Your task to perform on an android device: Play the new Ariana Grande video on YouTube Image 0: 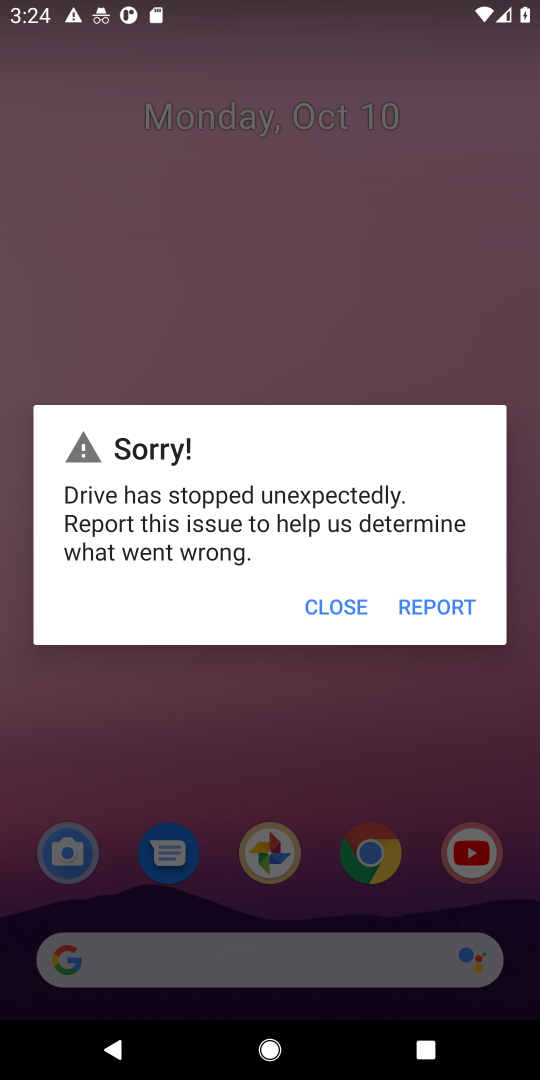
Step 0: click (373, 864)
Your task to perform on an android device: Play the new Ariana Grande video on YouTube Image 1: 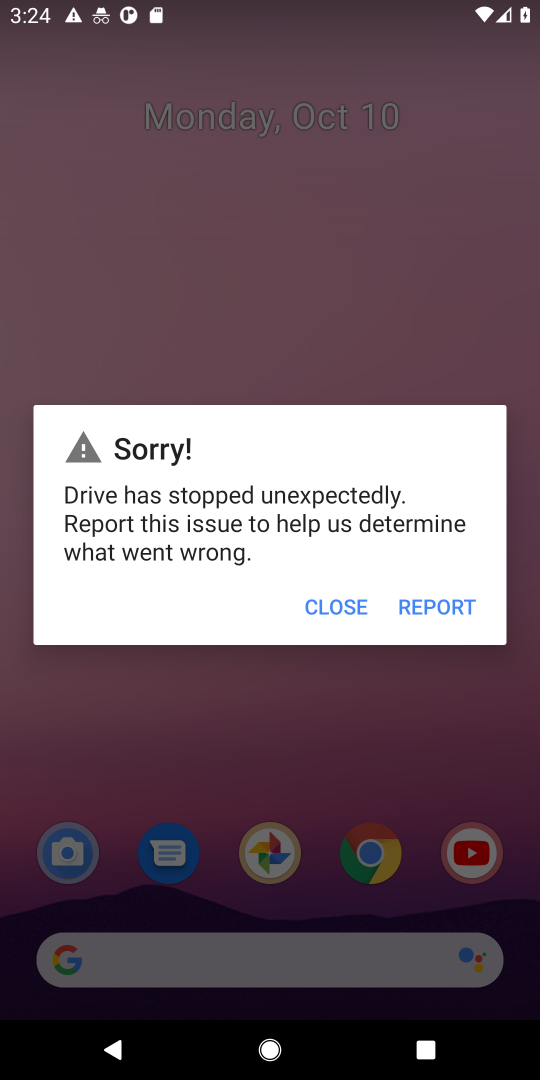
Step 1: click (344, 613)
Your task to perform on an android device: Play the new Ariana Grande video on YouTube Image 2: 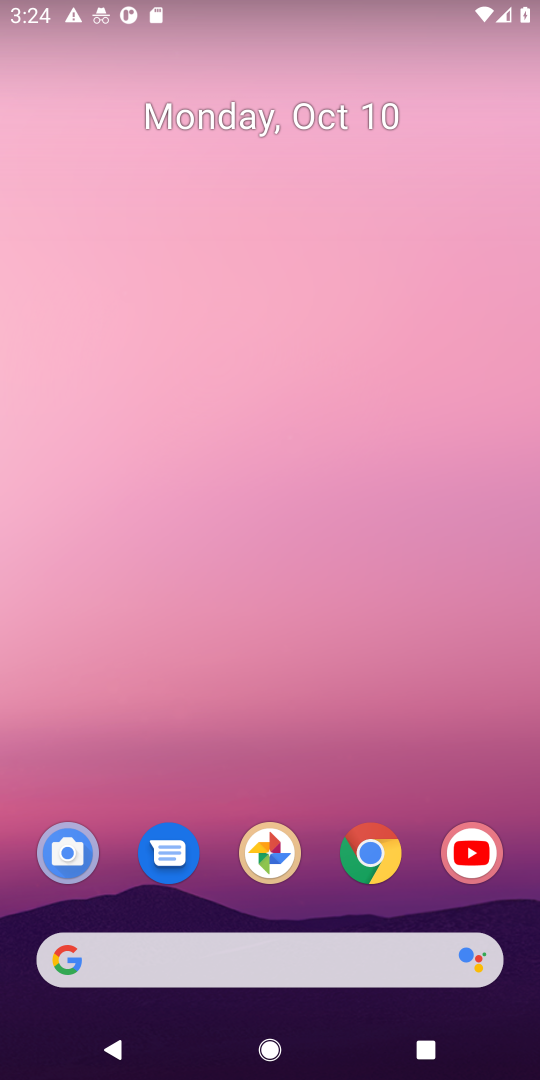
Step 2: click (466, 861)
Your task to perform on an android device: Play the new Ariana Grande video on YouTube Image 3: 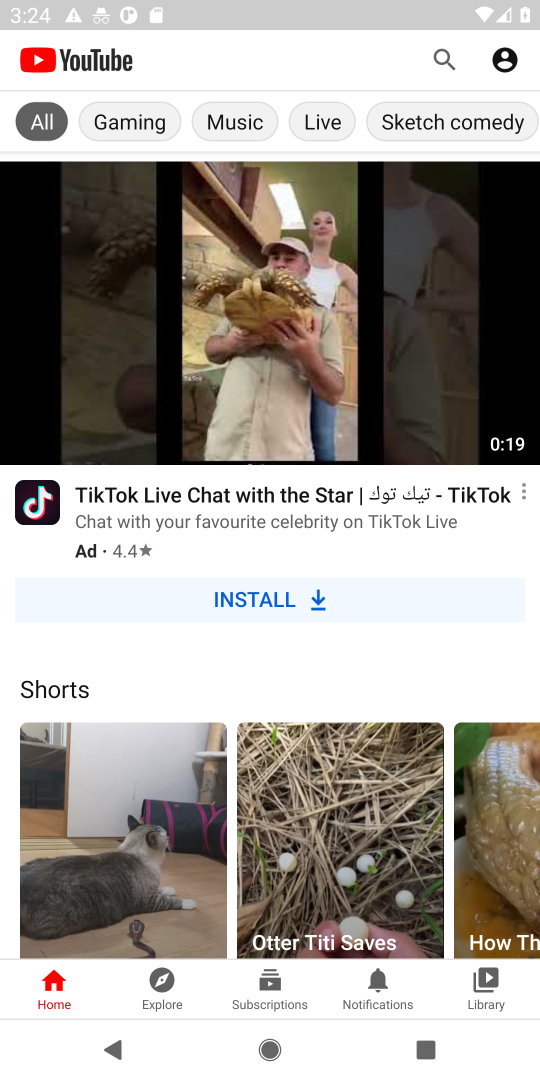
Step 3: click (451, 56)
Your task to perform on an android device: Play the new Ariana Grande video on YouTube Image 4: 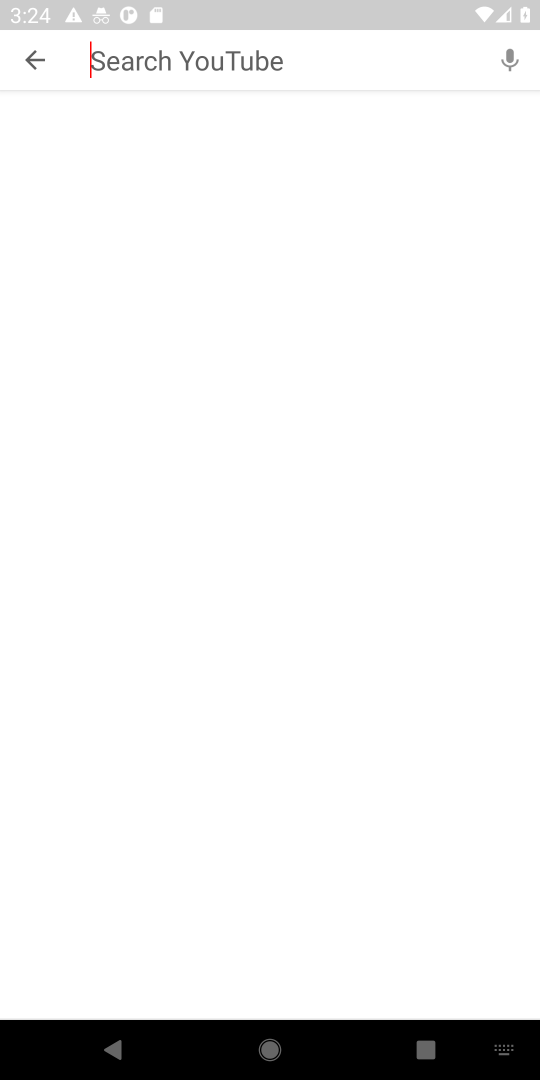
Step 4: type "new Ariana Grande video"
Your task to perform on an android device: Play the new Ariana Grande video on YouTube Image 5: 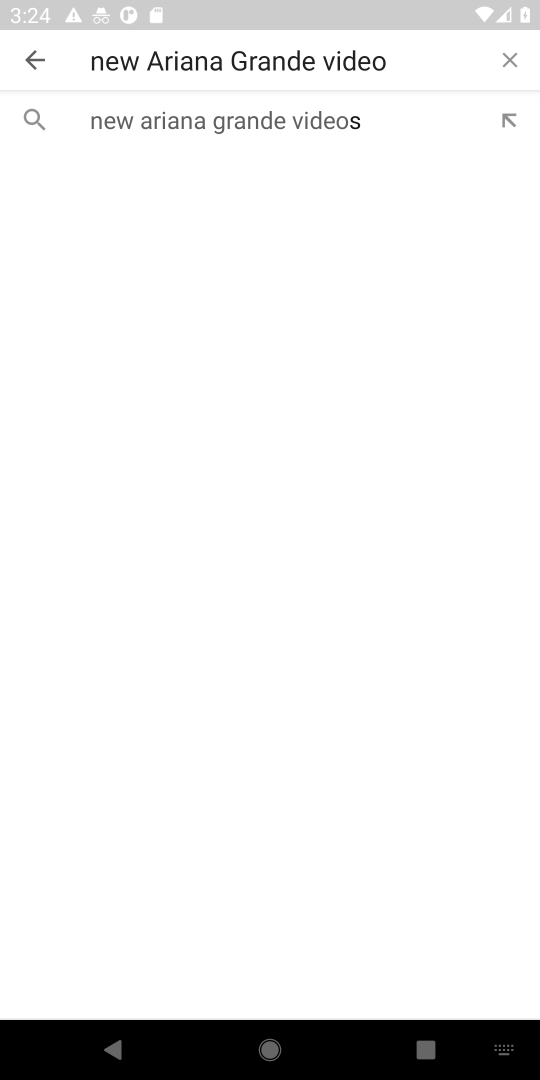
Step 5: type ""
Your task to perform on an android device: Play the new Ariana Grande video on YouTube Image 6: 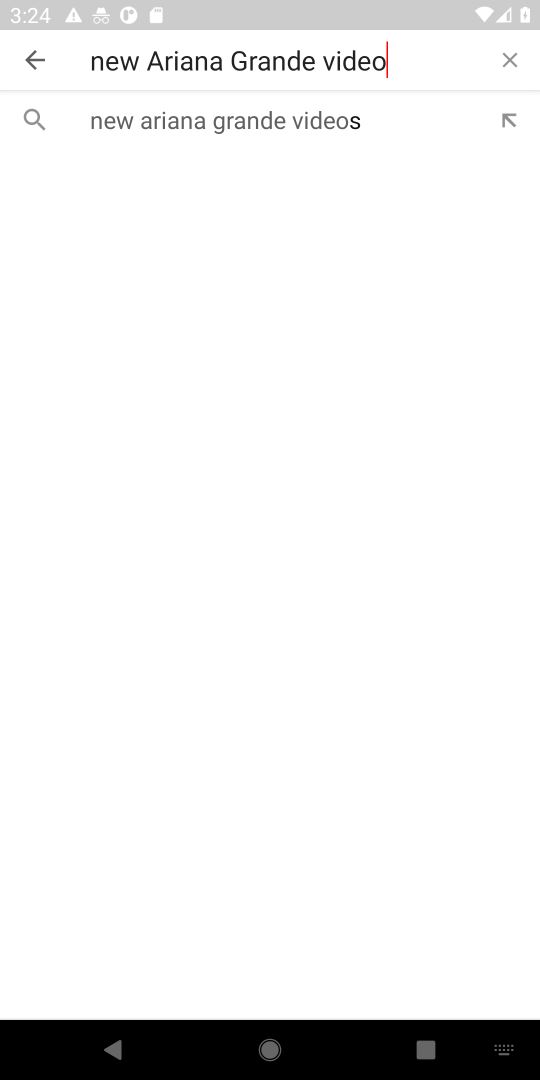
Step 6: click (257, 119)
Your task to perform on an android device: Play the new Ariana Grande video on YouTube Image 7: 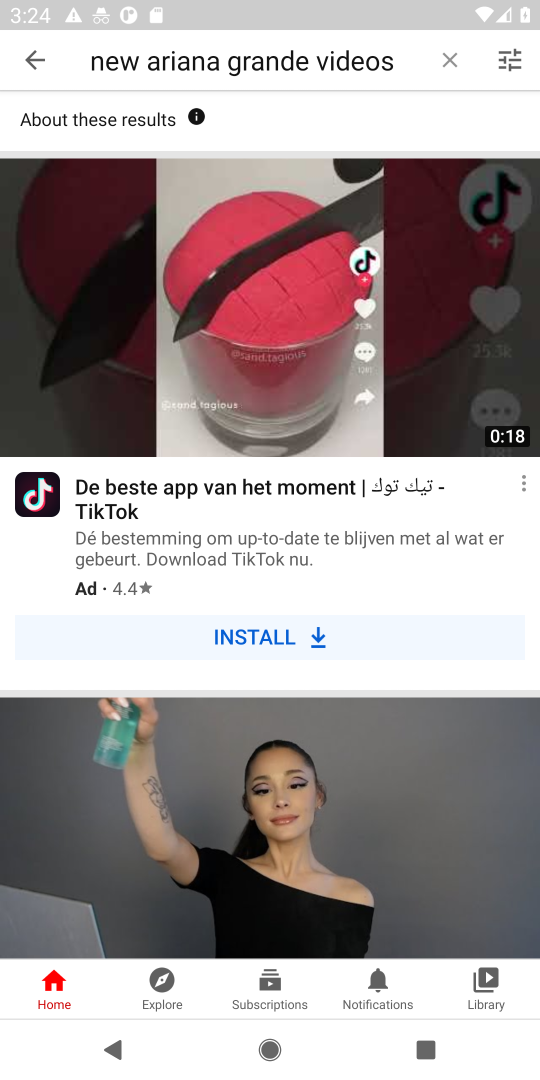
Step 7: drag from (338, 528) to (337, 242)
Your task to perform on an android device: Play the new Ariana Grande video on YouTube Image 8: 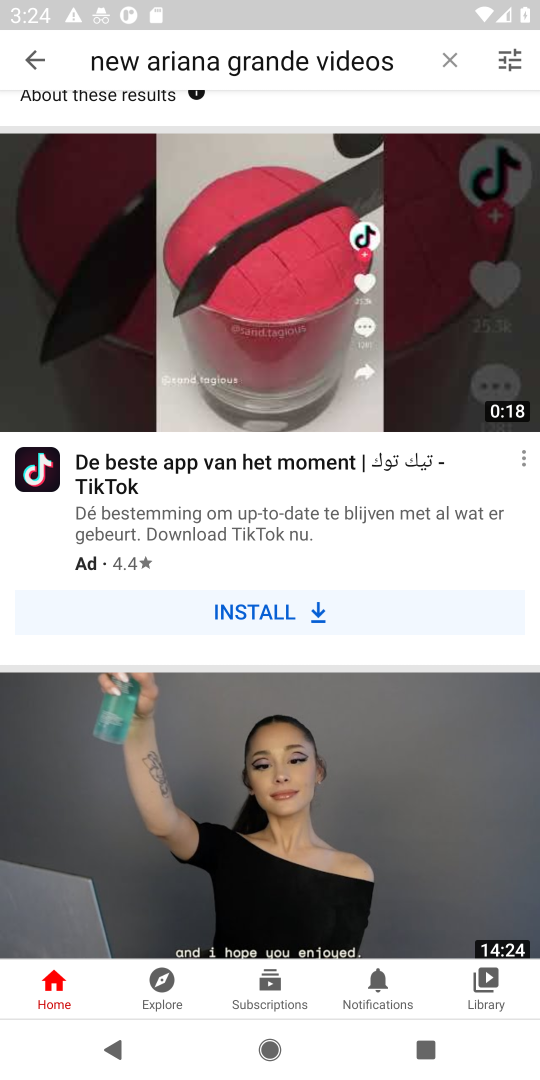
Step 8: drag from (401, 559) to (417, 187)
Your task to perform on an android device: Play the new Ariana Grande video on YouTube Image 9: 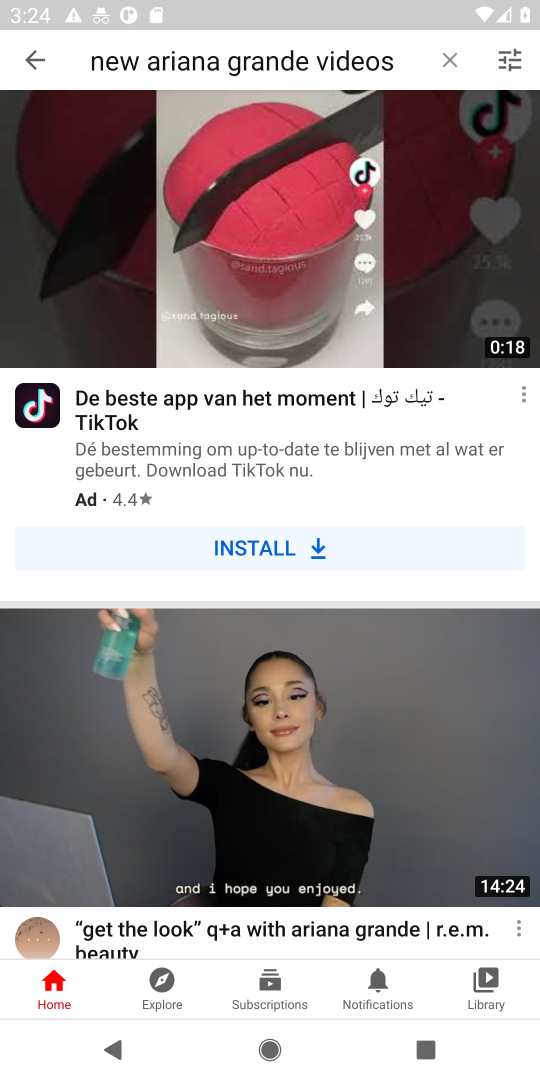
Step 9: drag from (422, 391) to (412, 109)
Your task to perform on an android device: Play the new Ariana Grande video on YouTube Image 10: 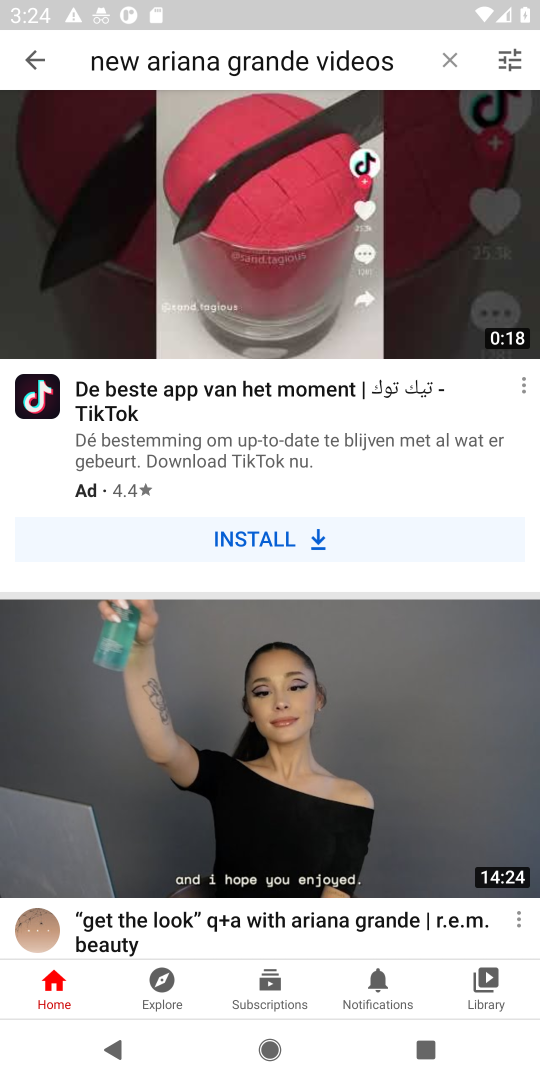
Step 10: click (324, 61)
Your task to perform on an android device: Play the new Ariana Grande video on YouTube Image 11: 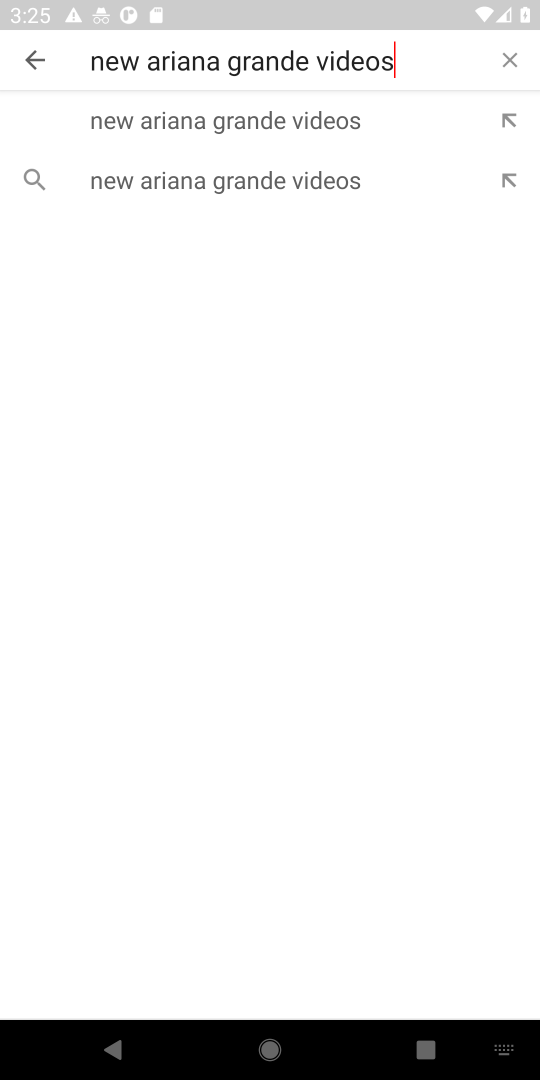
Step 11: click (427, 65)
Your task to perform on an android device: Play the new Ariana Grande video on YouTube Image 12: 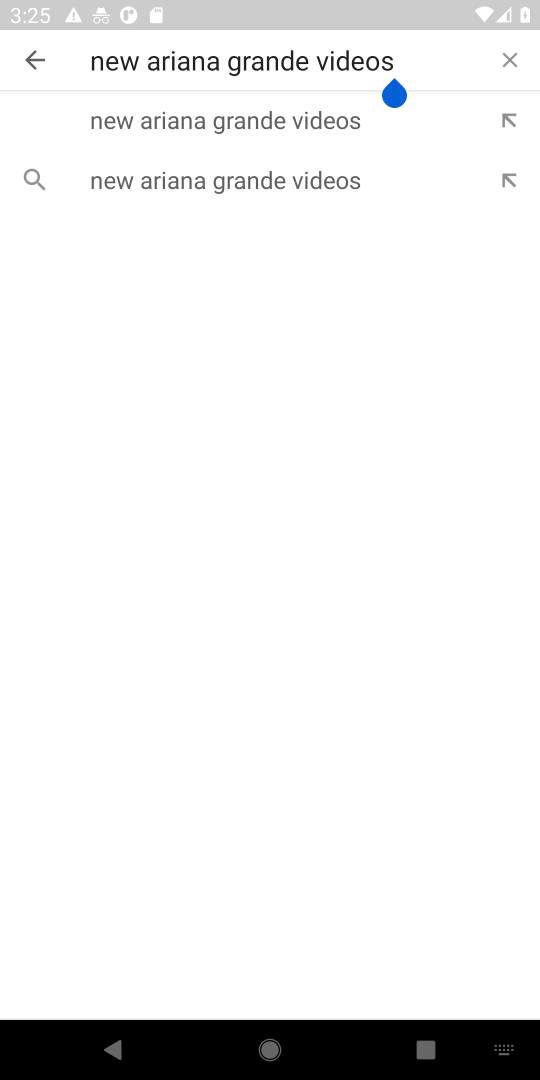
Step 12: click (314, 66)
Your task to perform on an android device: Play the new Ariana Grande video on YouTube Image 13: 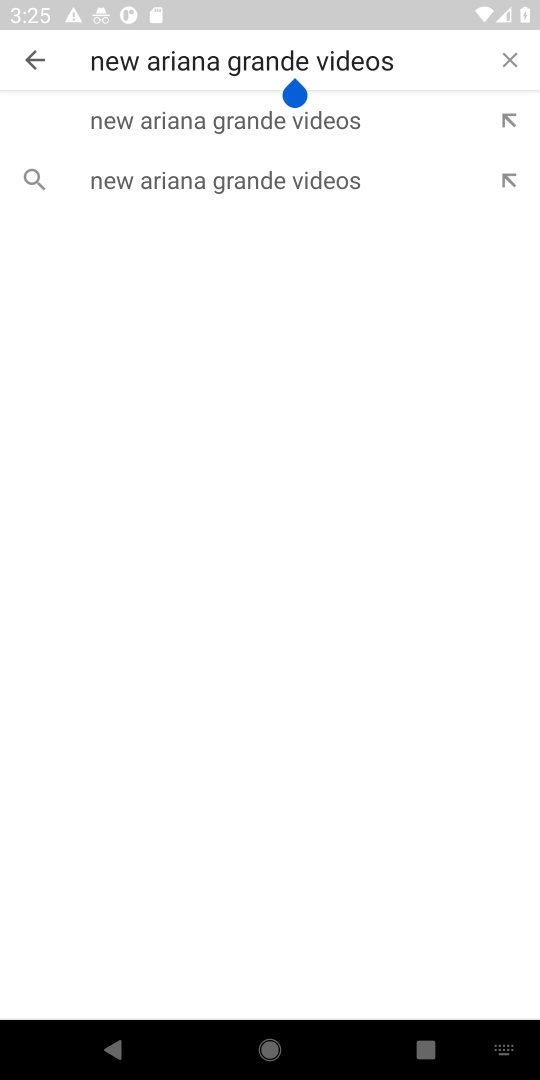
Step 13: press back button
Your task to perform on an android device: Play the new Ariana Grande video on YouTube Image 14: 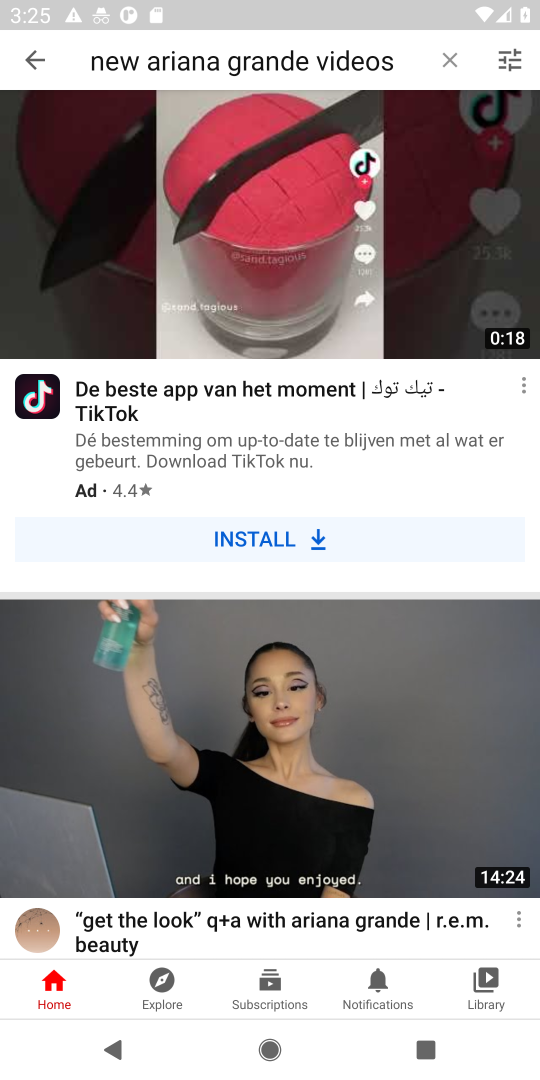
Step 14: press back button
Your task to perform on an android device: Play the new Ariana Grande video on YouTube Image 15: 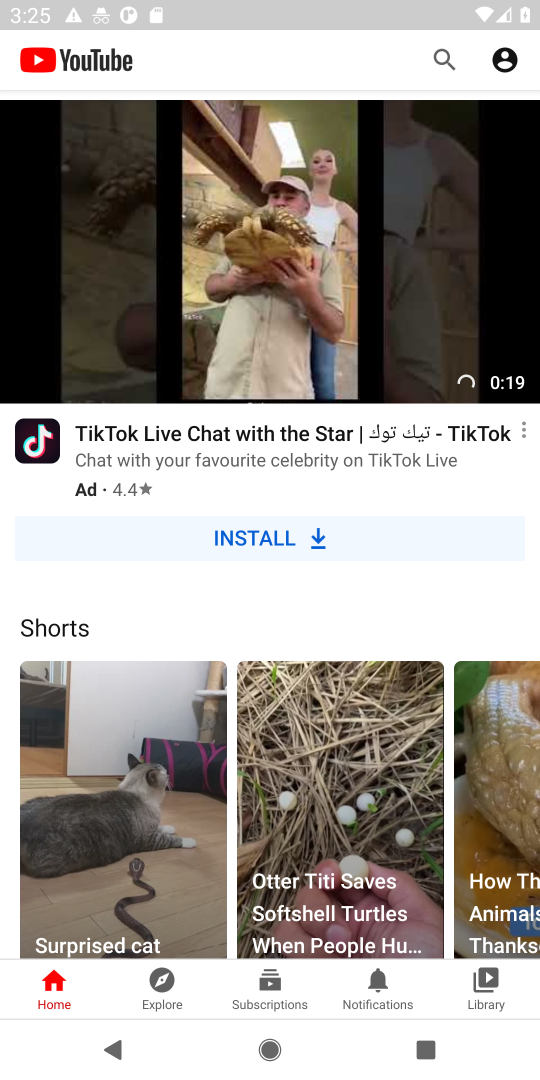
Step 15: press back button
Your task to perform on an android device: Play the new Ariana Grande video on YouTube Image 16: 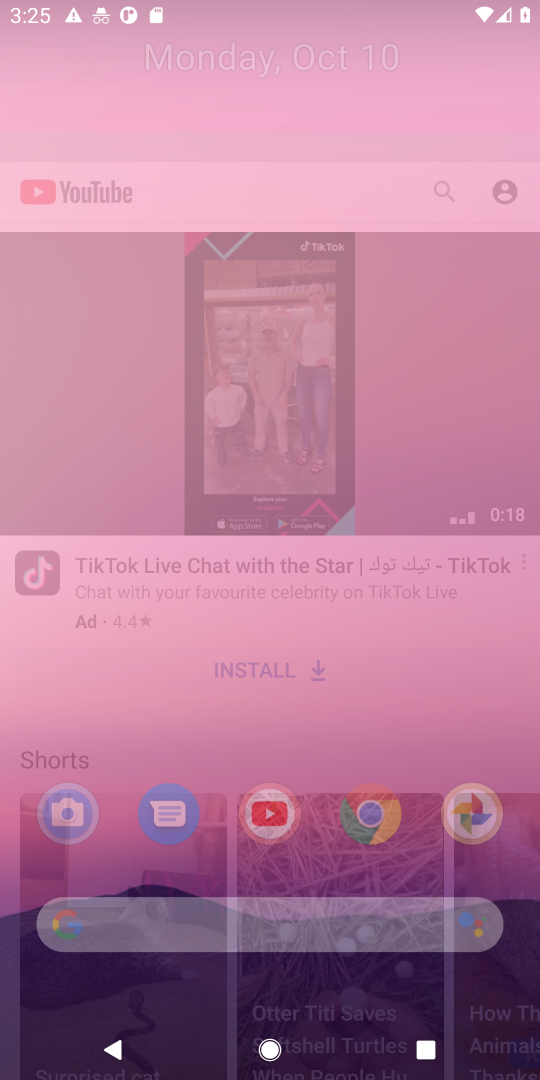
Step 16: press home button
Your task to perform on an android device: Play the new Ariana Grande video on YouTube Image 17: 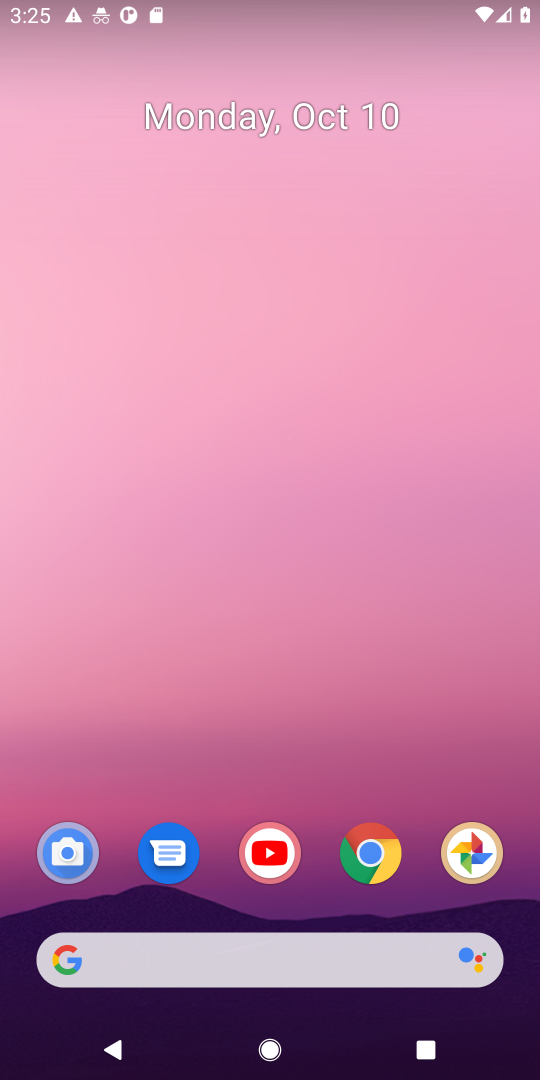
Step 17: click (374, 862)
Your task to perform on an android device: Play the new Ariana Grande video on YouTube Image 18: 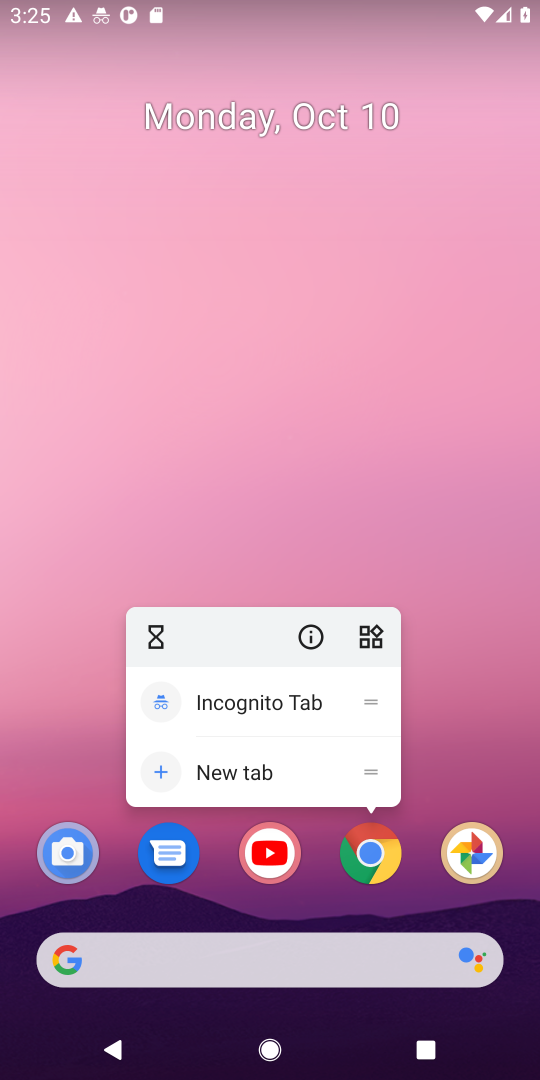
Step 18: click (380, 878)
Your task to perform on an android device: Play the new Ariana Grande video on YouTube Image 19: 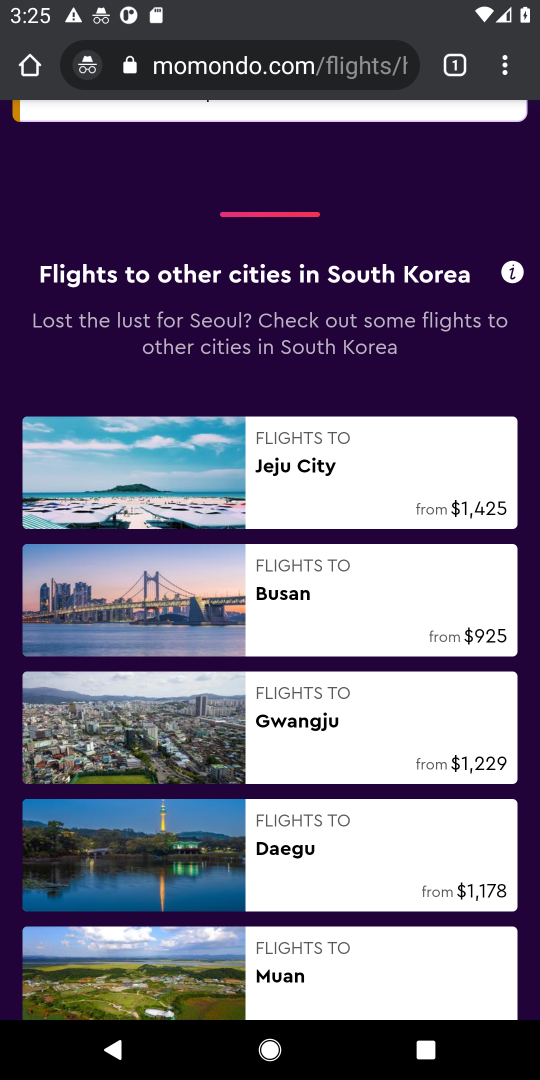
Step 19: click (245, 77)
Your task to perform on an android device: Play the new Ariana Grande video on YouTube Image 20: 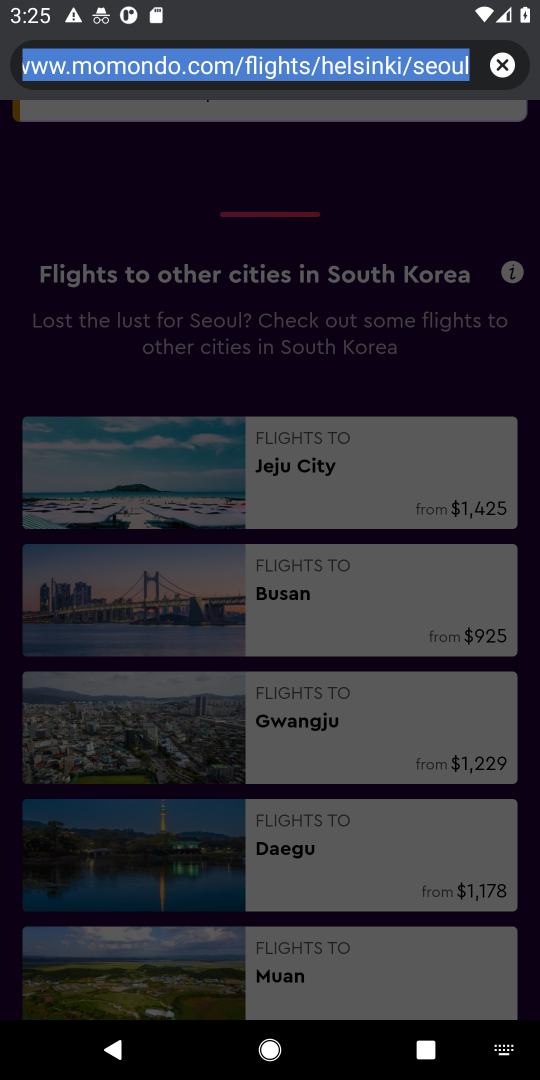
Step 20: type "new Ariana Grande video"
Your task to perform on an android device: Play the new Ariana Grande video on YouTube Image 21: 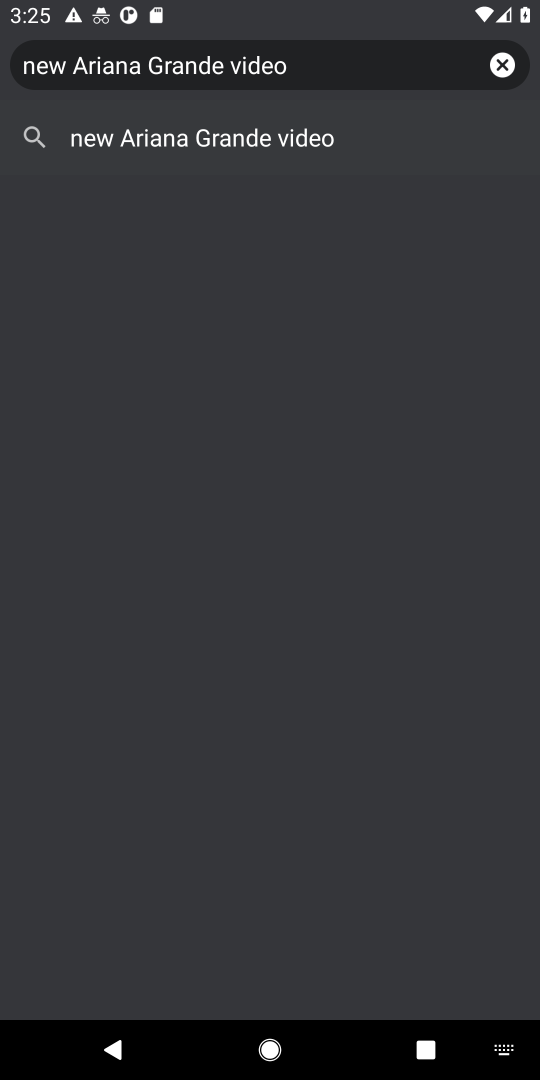
Step 21: type ""
Your task to perform on an android device: Play the new Ariana Grande video on YouTube Image 22: 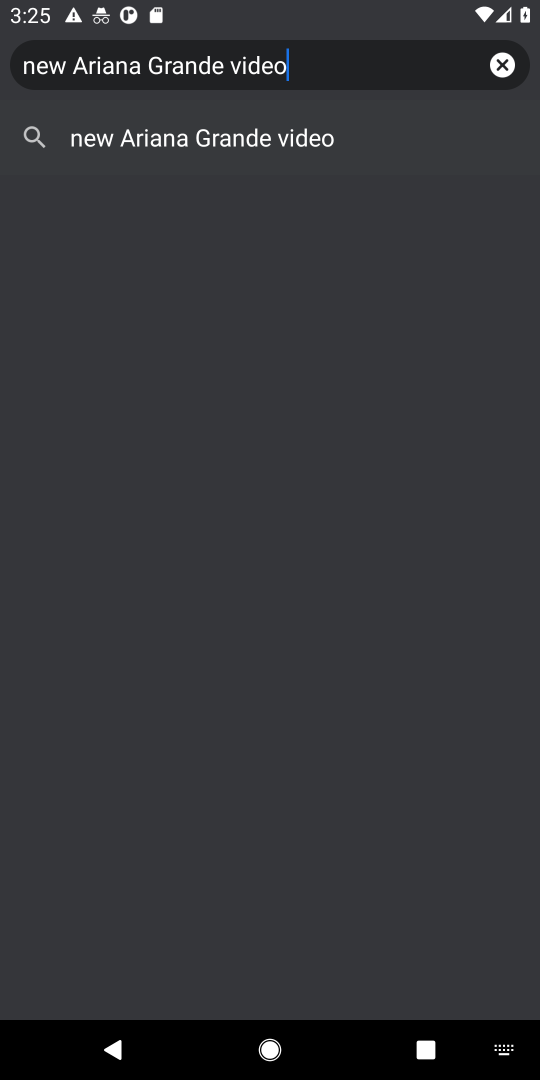
Step 22: click (141, 131)
Your task to perform on an android device: Play the new Ariana Grande video on YouTube Image 23: 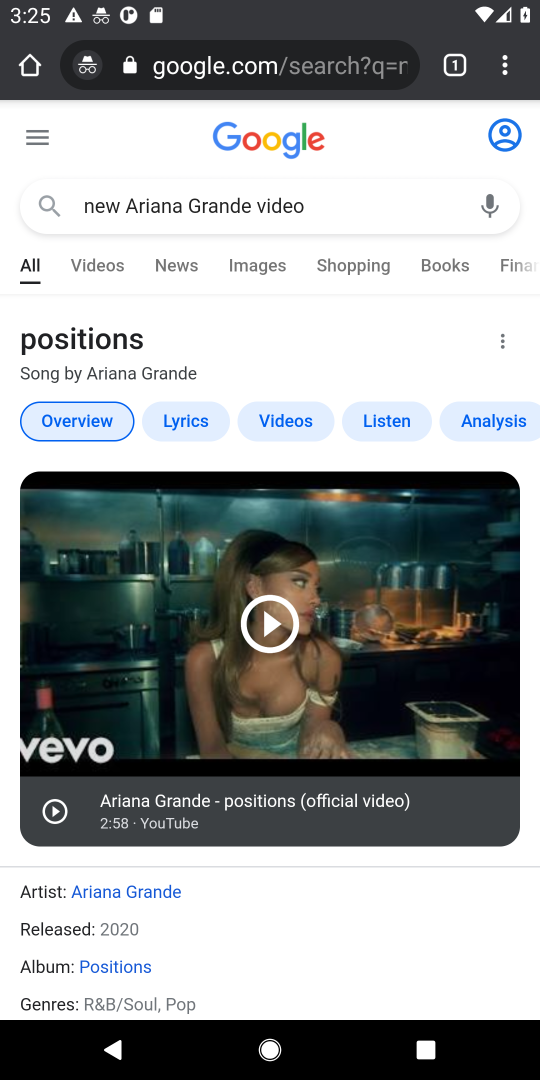
Step 23: drag from (303, 902) to (277, 230)
Your task to perform on an android device: Play the new Ariana Grande video on YouTube Image 24: 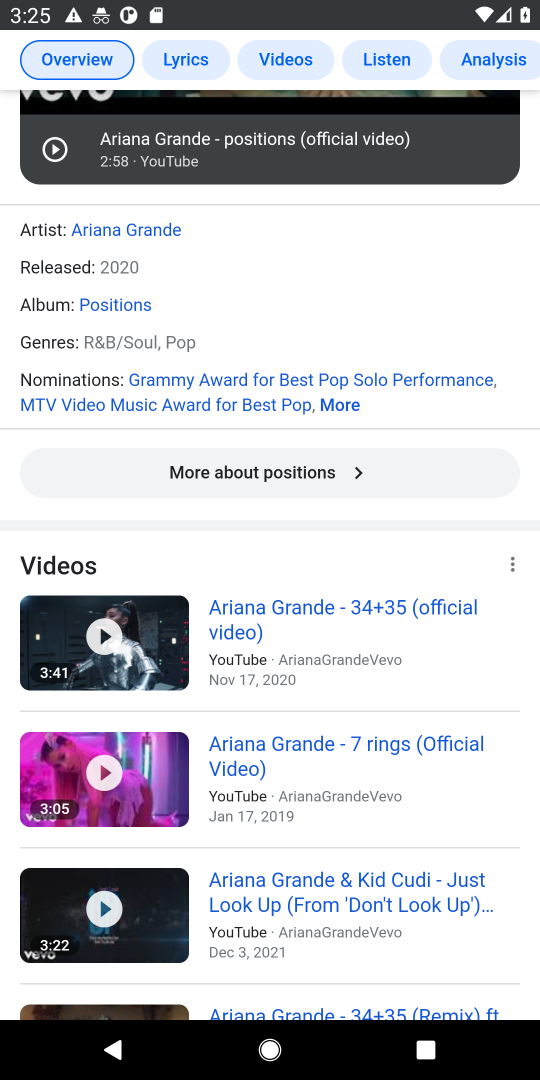
Step 24: click (232, 613)
Your task to perform on an android device: Play the new Ariana Grande video on YouTube Image 25: 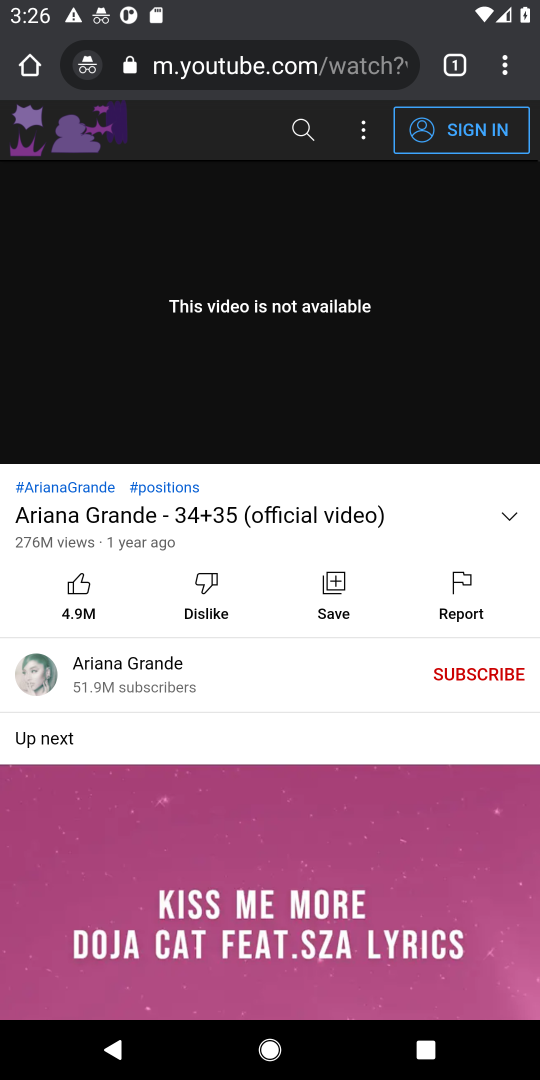
Step 25: click (81, 665)
Your task to perform on an android device: Play the new Ariana Grande video on YouTube Image 26: 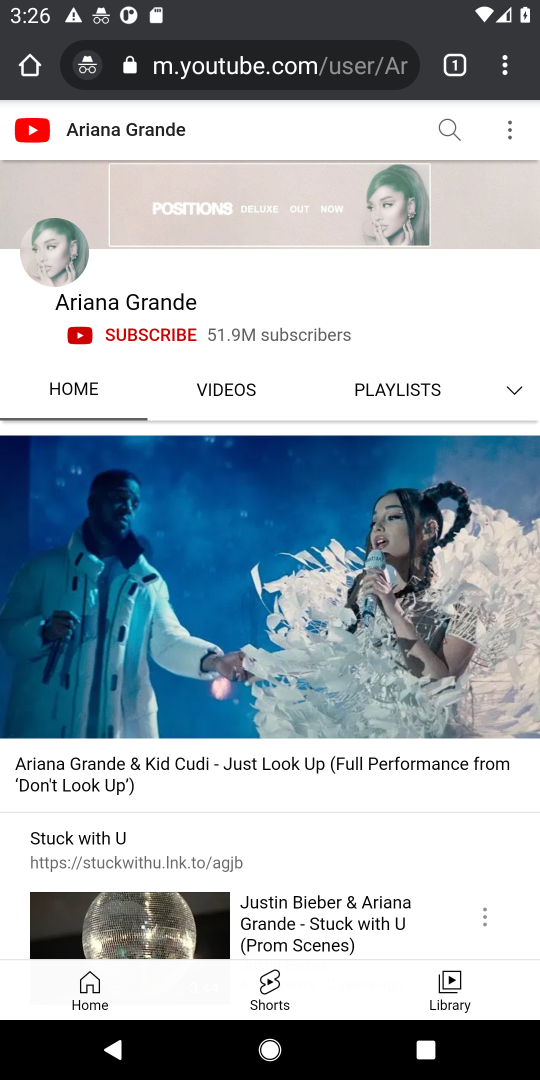
Step 26: click (183, 393)
Your task to perform on an android device: Play the new Ariana Grande video on YouTube Image 27: 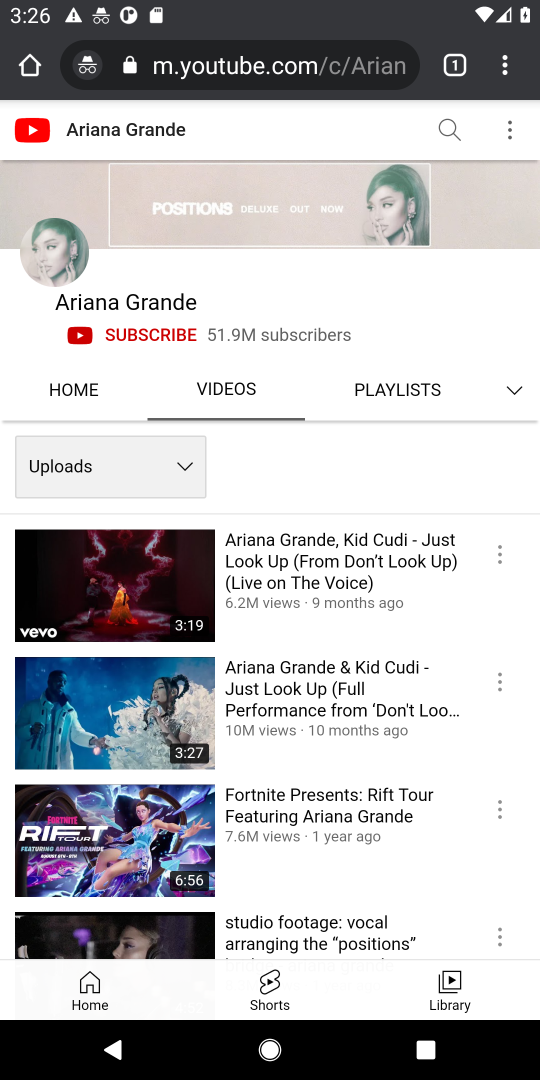
Step 27: click (336, 575)
Your task to perform on an android device: Play the new Ariana Grande video on YouTube Image 28: 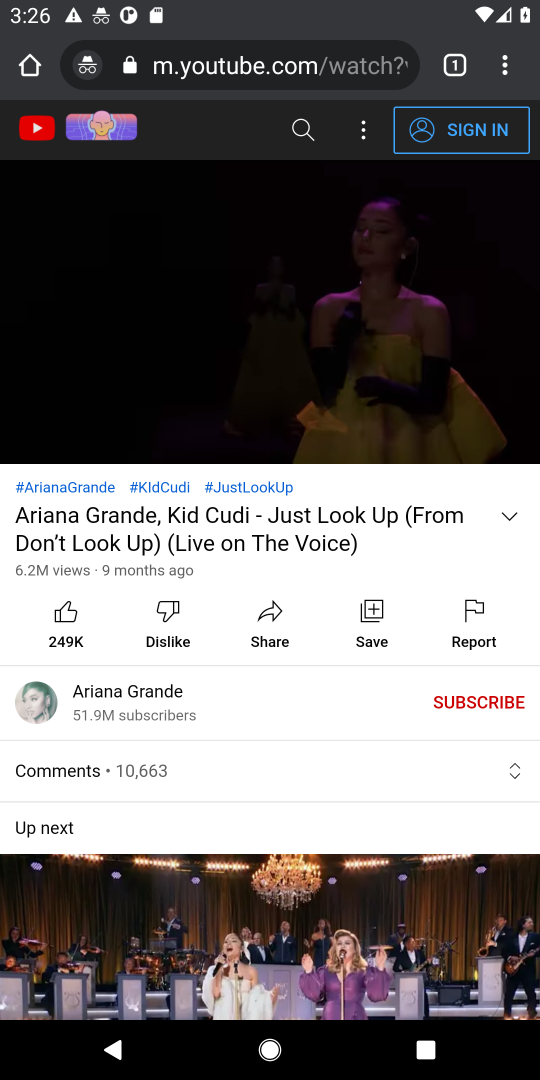
Step 28: drag from (141, 835) to (237, 127)
Your task to perform on an android device: Play the new Ariana Grande video on YouTube Image 29: 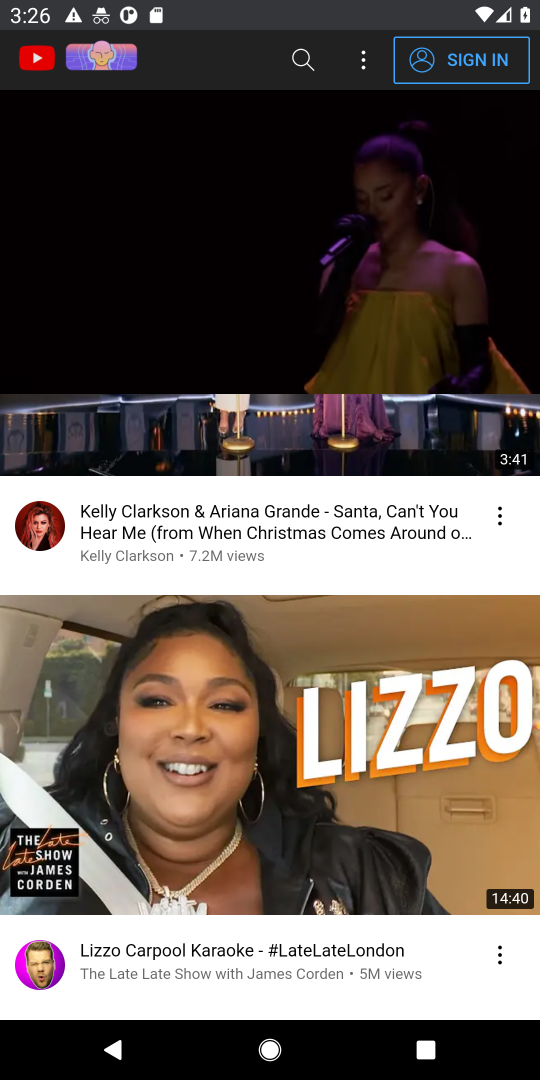
Step 29: drag from (296, 484) to (257, 149)
Your task to perform on an android device: Play the new Ariana Grande video on YouTube Image 30: 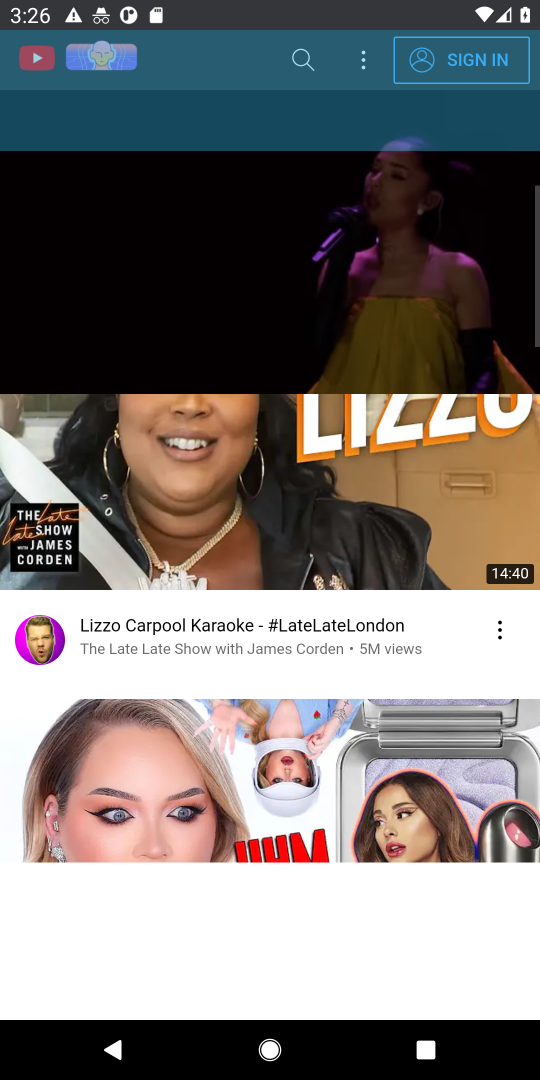
Step 30: drag from (329, 352) to (341, 193)
Your task to perform on an android device: Play the new Ariana Grande video on YouTube Image 31: 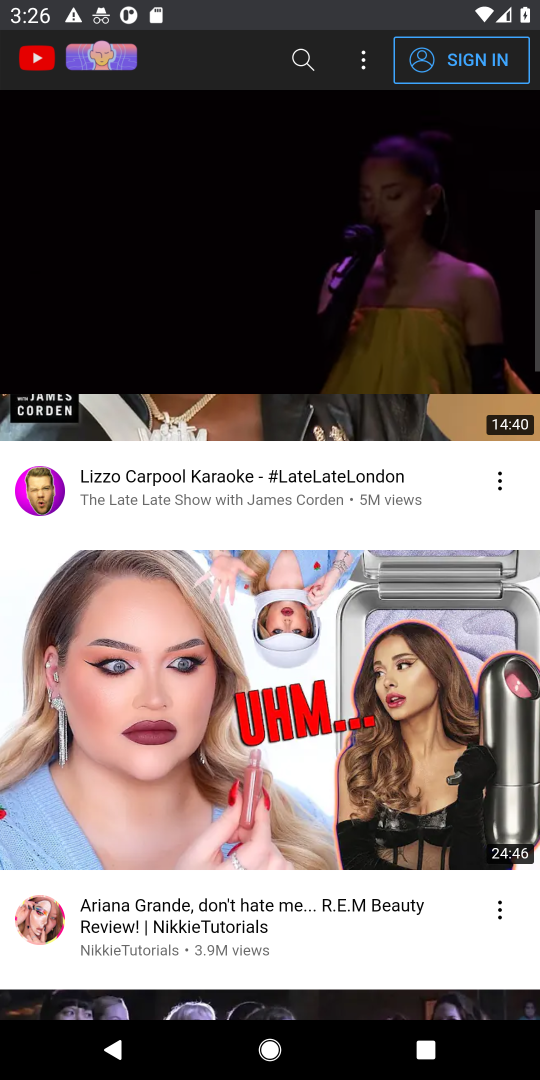
Step 31: drag from (349, 692) to (302, 189)
Your task to perform on an android device: Play the new Ariana Grande video on YouTube Image 32: 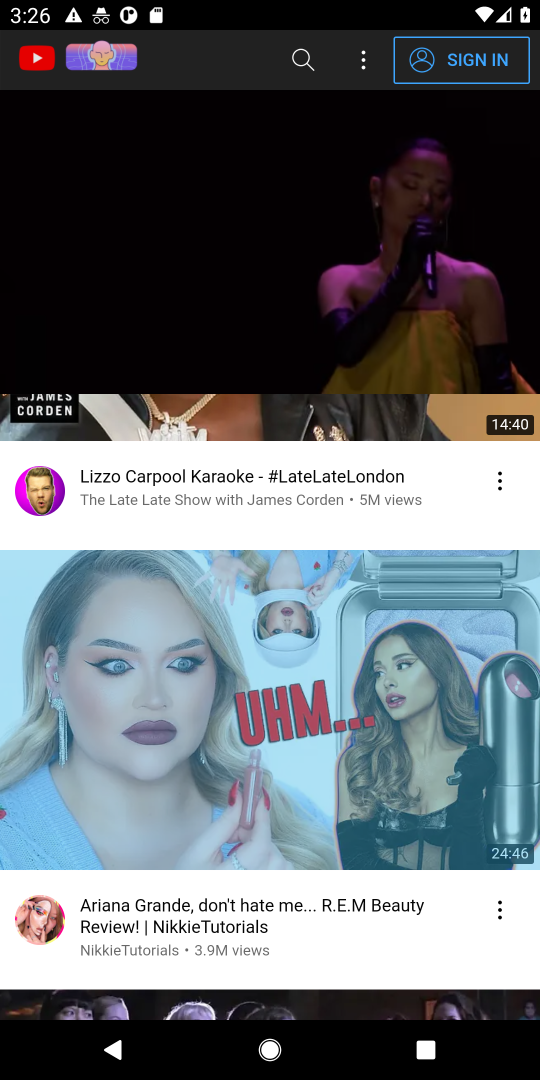
Step 32: drag from (302, 723) to (326, 182)
Your task to perform on an android device: Play the new Ariana Grande video on YouTube Image 33: 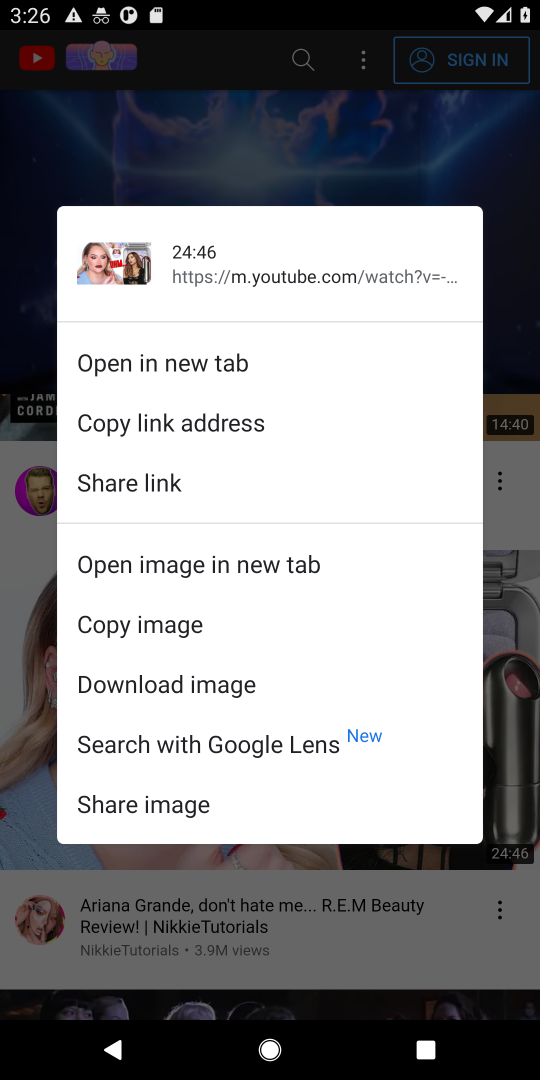
Step 33: click (229, 129)
Your task to perform on an android device: Play the new Ariana Grande video on YouTube Image 34: 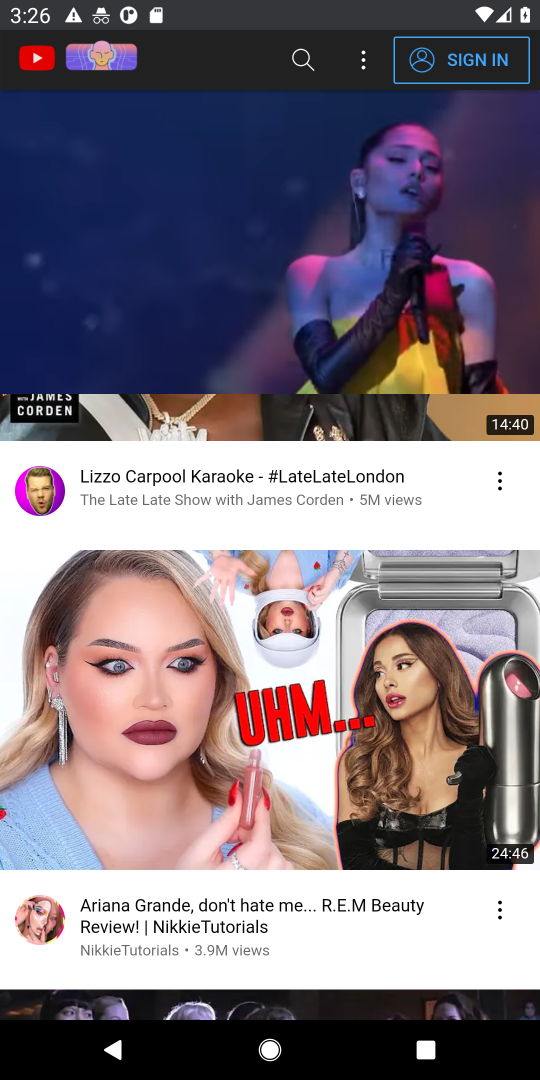
Step 34: drag from (310, 397) to (321, 273)
Your task to perform on an android device: Play the new Ariana Grande video on YouTube Image 35: 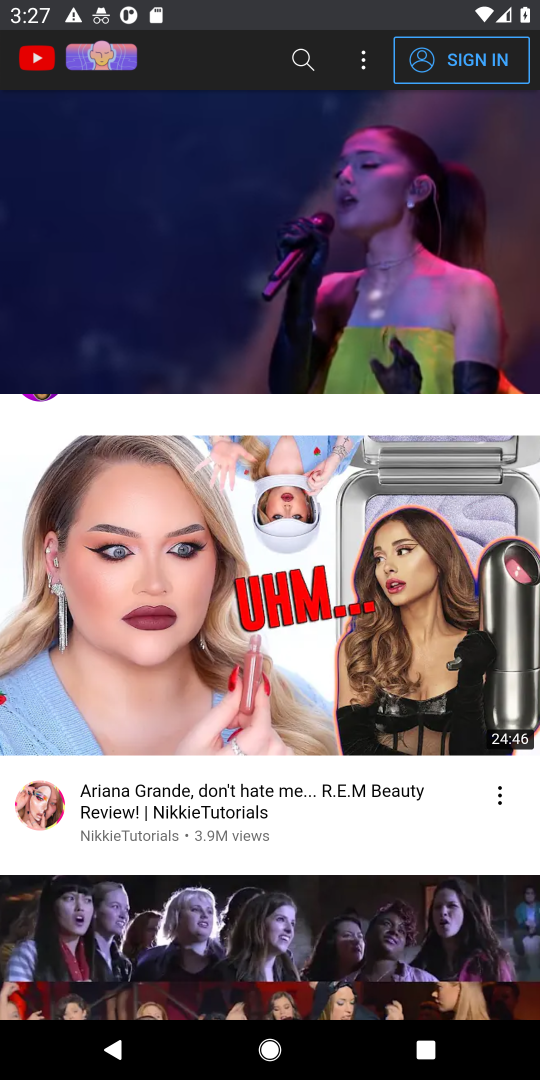
Step 35: drag from (269, 990) to (278, 385)
Your task to perform on an android device: Play the new Ariana Grande video on YouTube Image 36: 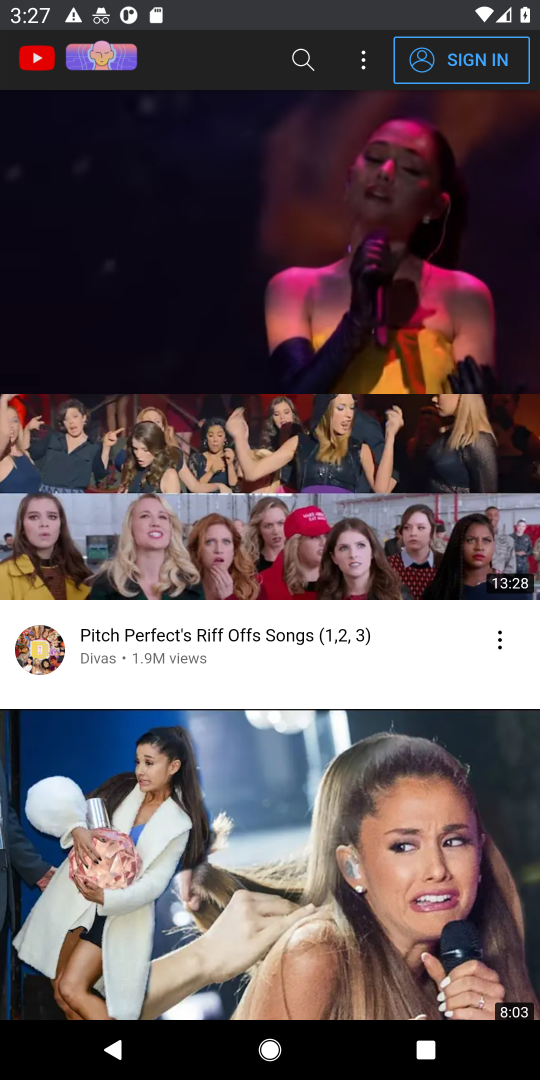
Step 36: drag from (296, 887) to (363, 500)
Your task to perform on an android device: Play the new Ariana Grande video on YouTube Image 37: 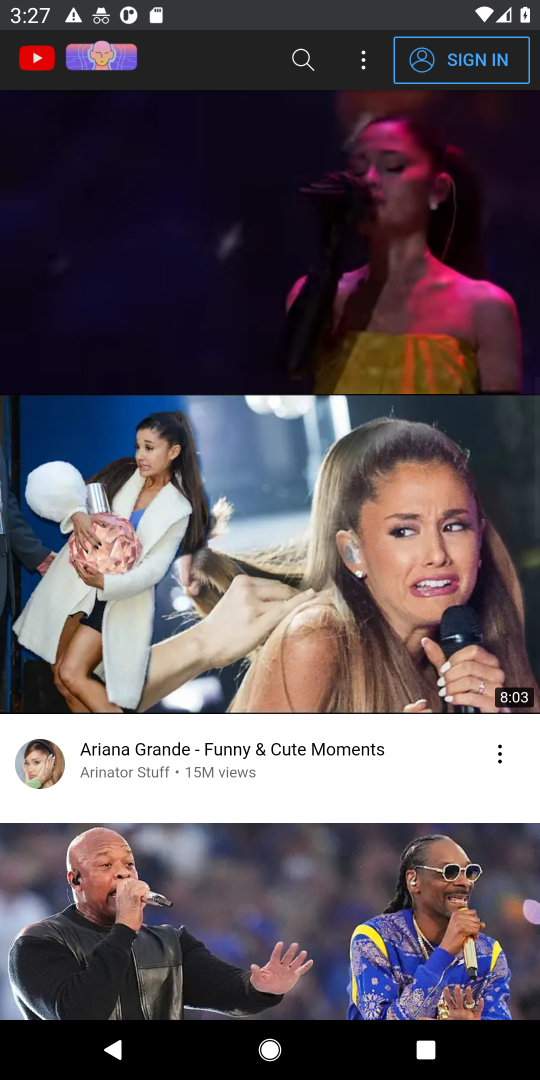
Step 37: drag from (387, 764) to (435, 320)
Your task to perform on an android device: Play the new Ariana Grande video on YouTube Image 38: 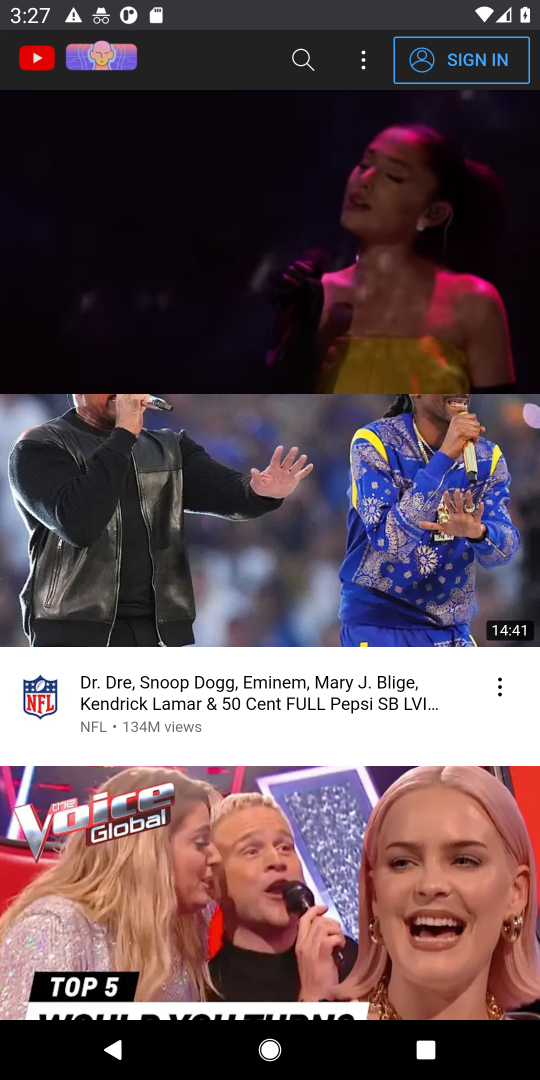
Step 38: drag from (411, 490) to (409, 385)
Your task to perform on an android device: Play the new Ariana Grande video on YouTube Image 39: 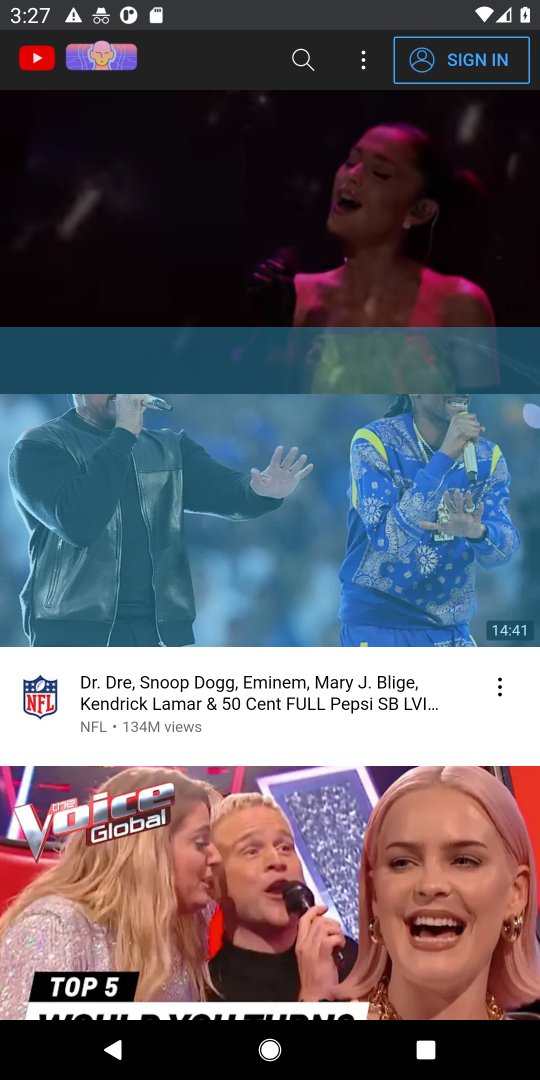
Step 39: drag from (419, 850) to (423, 514)
Your task to perform on an android device: Play the new Ariana Grande video on YouTube Image 40: 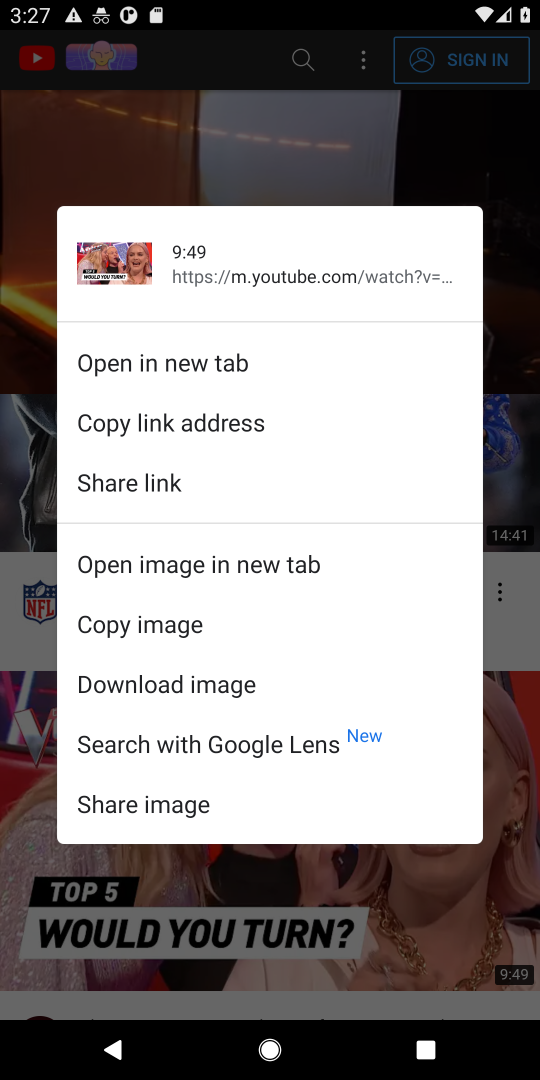
Step 40: press back button
Your task to perform on an android device: Play the new Ariana Grande video on YouTube Image 41: 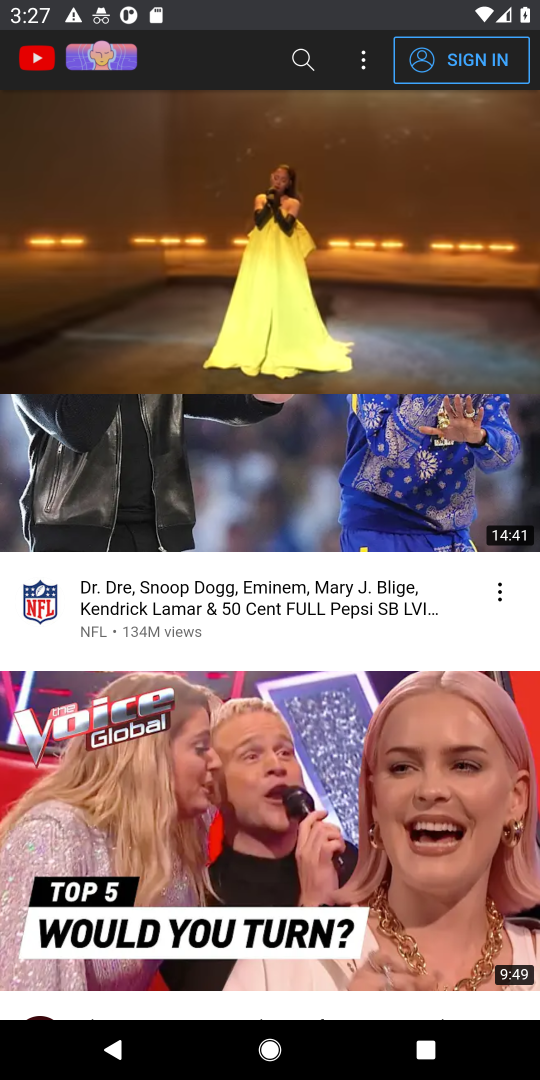
Step 41: click (284, 800)
Your task to perform on an android device: Play the new Ariana Grande video on YouTube Image 42: 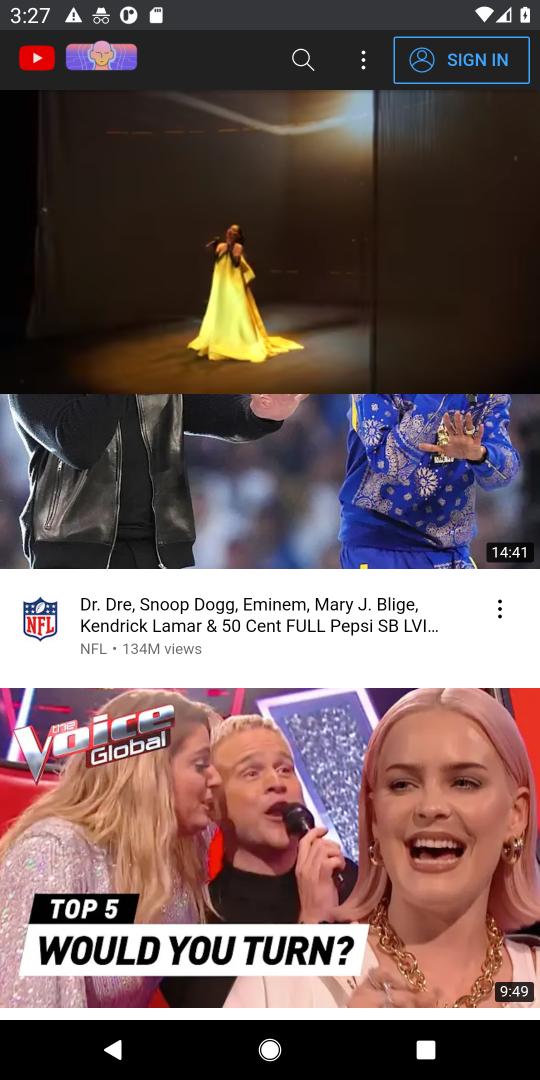
Step 42: task complete